Your task to perform on an android device: Open network settings Image 0: 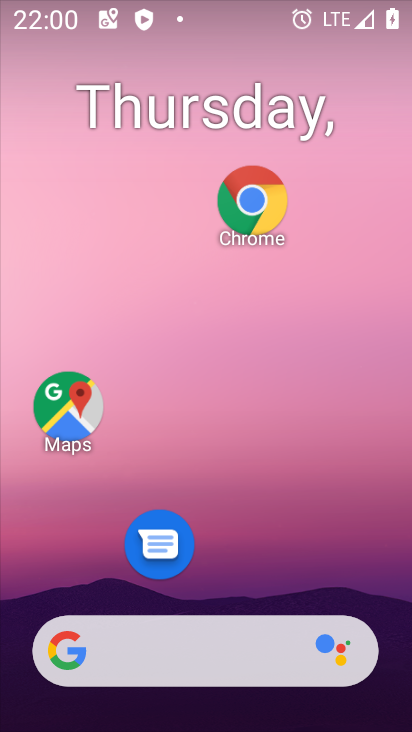
Step 0: drag from (221, 16) to (153, 573)
Your task to perform on an android device: Open network settings Image 1: 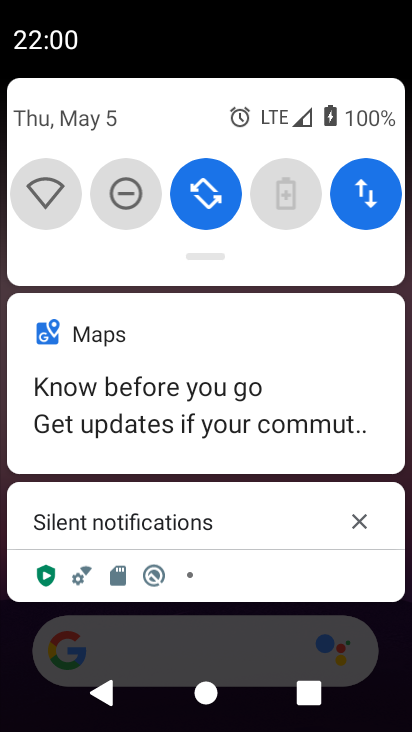
Step 1: drag from (233, 126) to (279, 529)
Your task to perform on an android device: Open network settings Image 2: 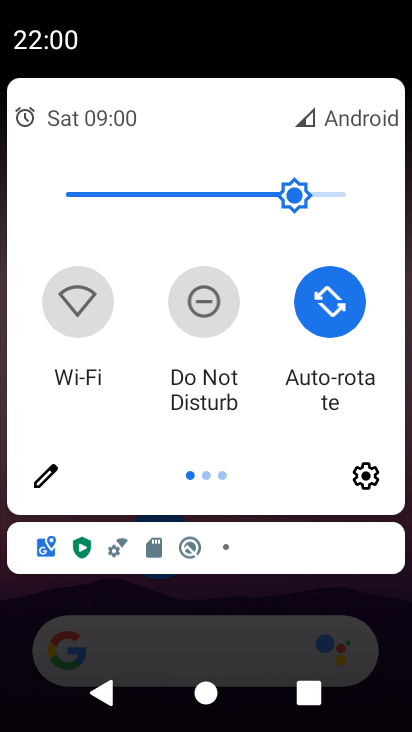
Step 2: click (376, 468)
Your task to perform on an android device: Open network settings Image 3: 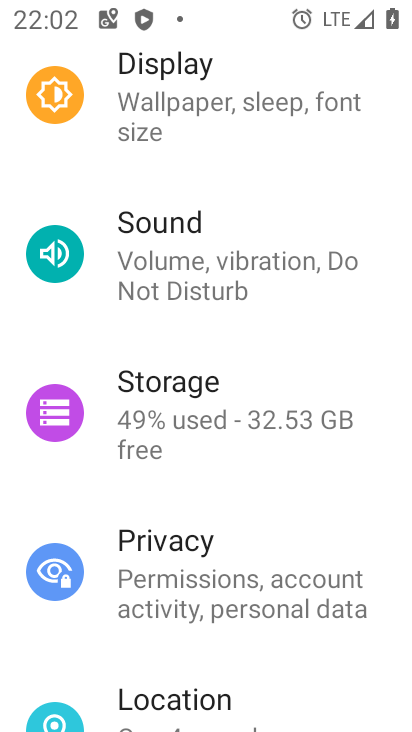
Step 3: drag from (267, 223) to (265, 652)
Your task to perform on an android device: Open network settings Image 4: 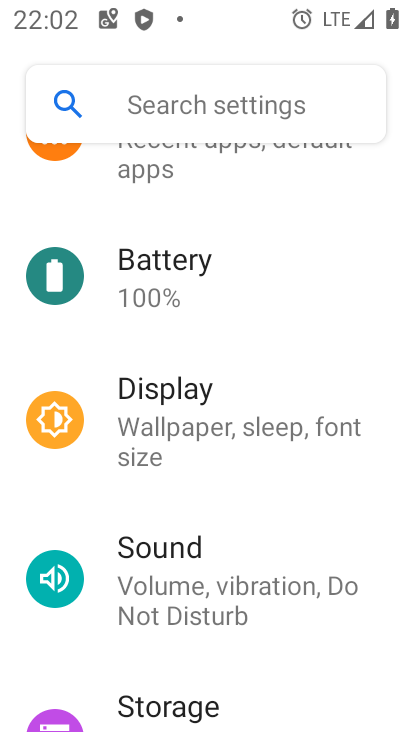
Step 4: drag from (216, 245) to (226, 667)
Your task to perform on an android device: Open network settings Image 5: 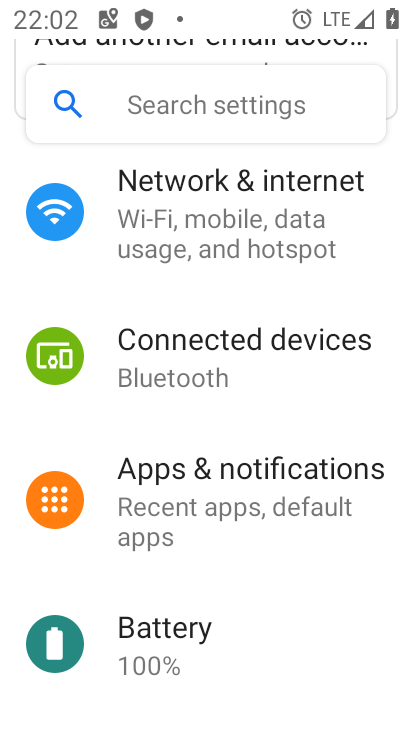
Step 5: click (253, 203)
Your task to perform on an android device: Open network settings Image 6: 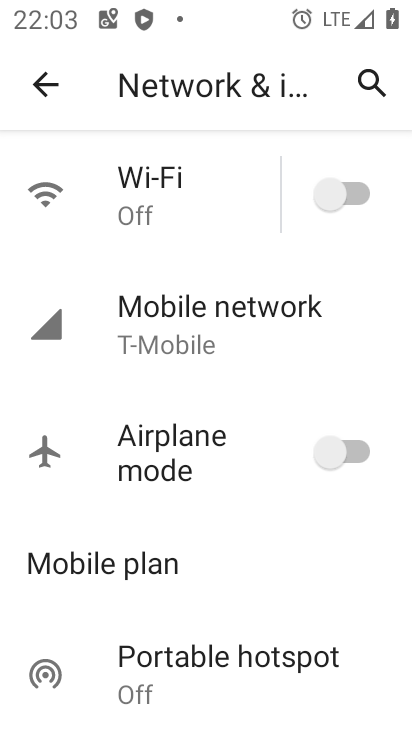
Step 6: click (213, 300)
Your task to perform on an android device: Open network settings Image 7: 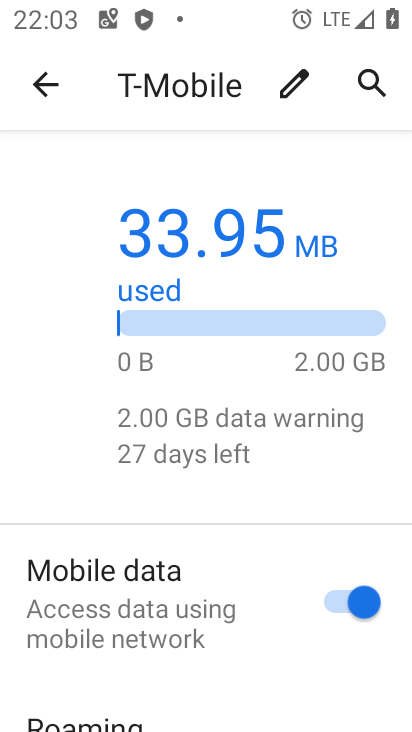
Step 7: task complete